Your task to perform on an android device: allow cookies in the chrome app Image 0: 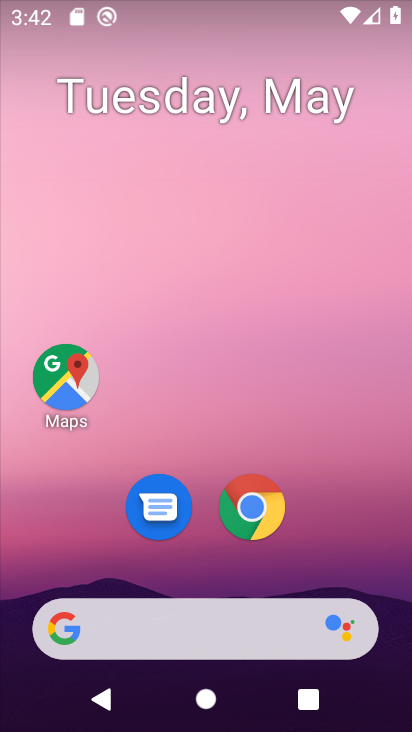
Step 0: click (246, 503)
Your task to perform on an android device: allow cookies in the chrome app Image 1: 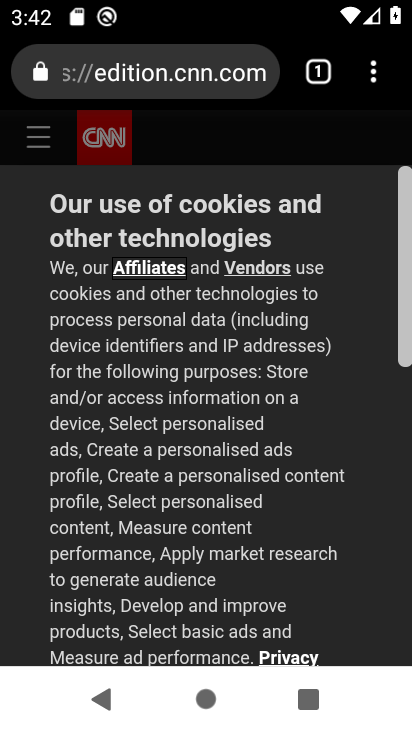
Step 1: click (371, 81)
Your task to perform on an android device: allow cookies in the chrome app Image 2: 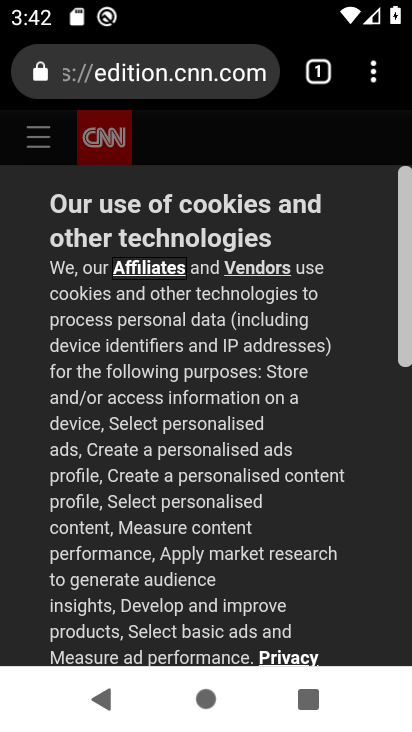
Step 2: click (363, 73)
Your task to perform on an android device: allow cookies in the chrome app Image 3: 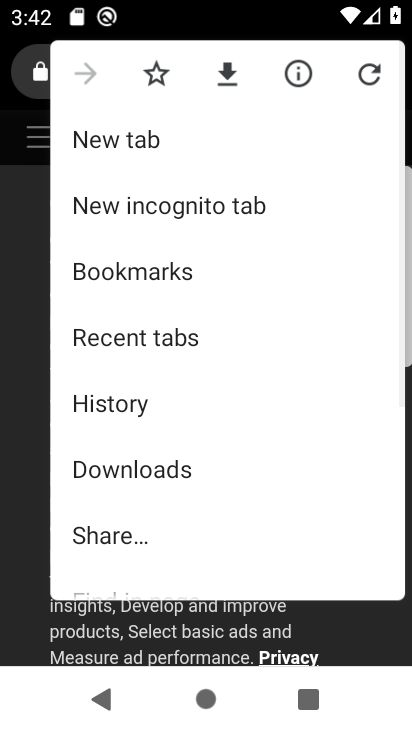
Step 3: drag from (177, 507) to (177, 208)
Your task to perform on an android device: allow cookies in the chrome app Image 4: 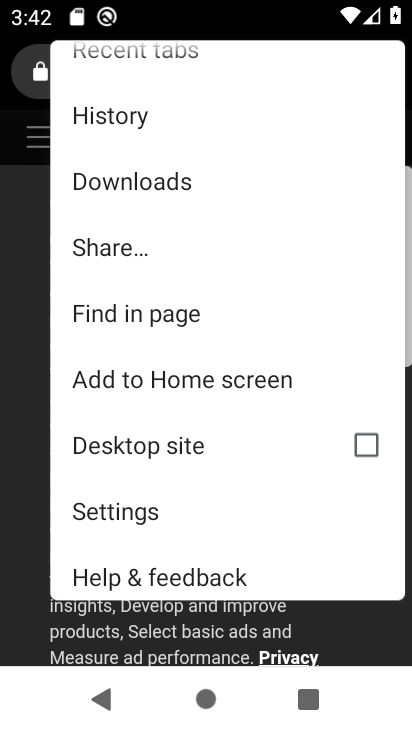
Step 4: click (189, 508)
Your task to perform on an android device: allow cookies in the chrome app Image 5: 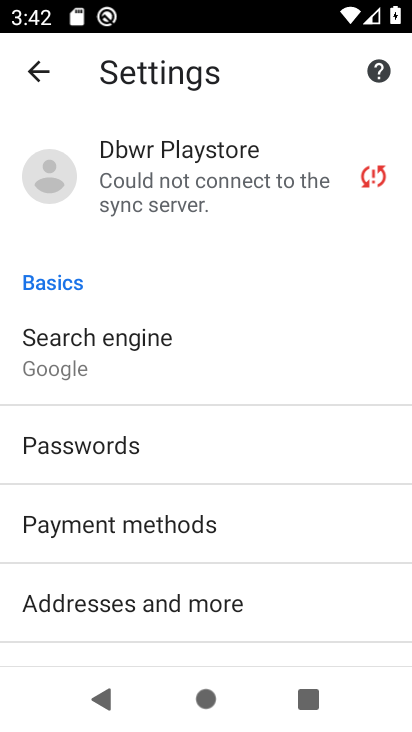
Step 5: drag from (167, 581) to (206, 284)
Your task to perform on an android device: allow cookies in the chrome app Image 6: 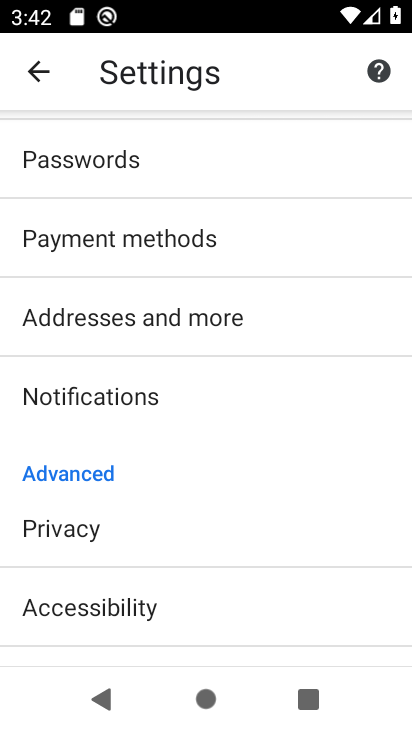
Step 6: drag from (140, 631) to (190, 258)
Your task to perform on an android device: allow cookies in the chrome app Image 7: 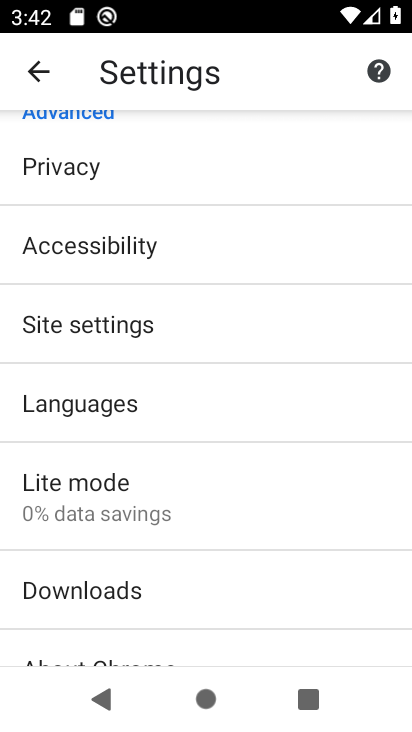
Step 7: click (118, 317)
Your task to perform on an android device: allow cookies in the chrome app Image 8: 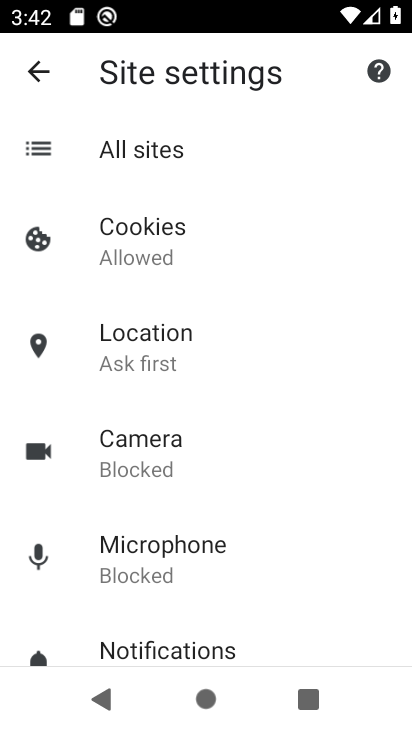
Step 8: click (171, 259)
Your task to perform on an android device: allow cookies in the chrome app Image 9: 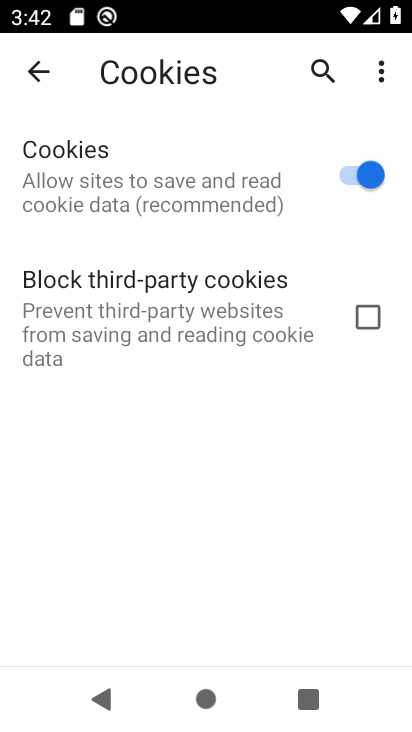
Step 9: task complete